Your task to perform on an android device: See recent photos Image 0: 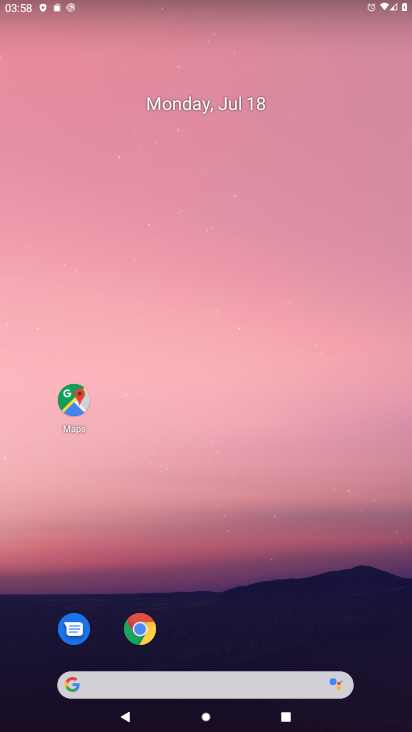
Step 0: click (130, 636)
Your task to perform on an android device: See recent photos Image 1: 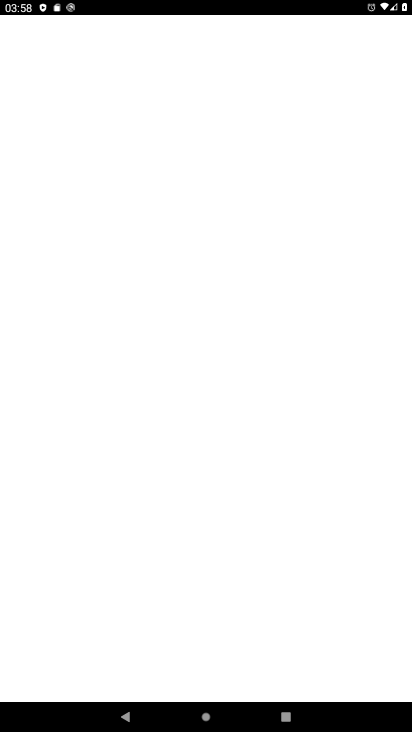
Step 1: press home button
Your task to perform on an android device: See recent photos Image 2: 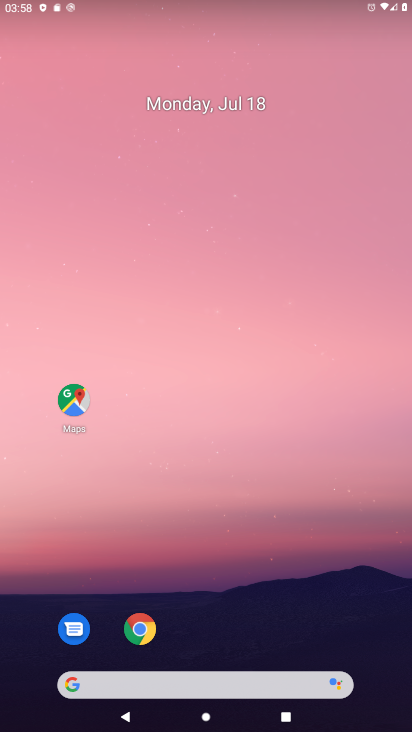
Step 2: drag from (366, 673) to (247, 109)
Your task to perform on an android device: See recent photos Image 3: 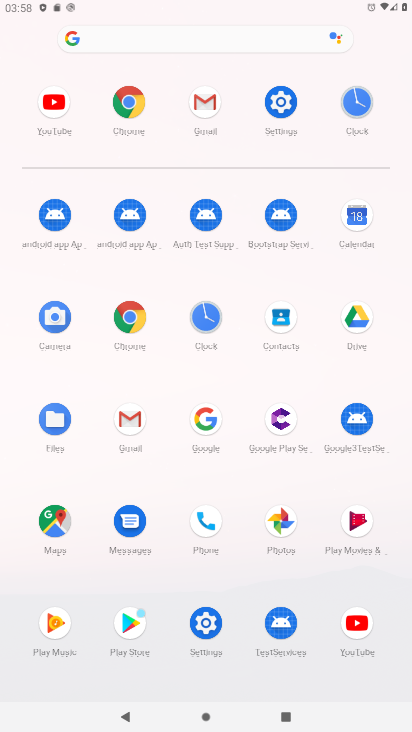
Step 3: click (271, 509)
Your task to perform on an android device: See recent photos Image 4: 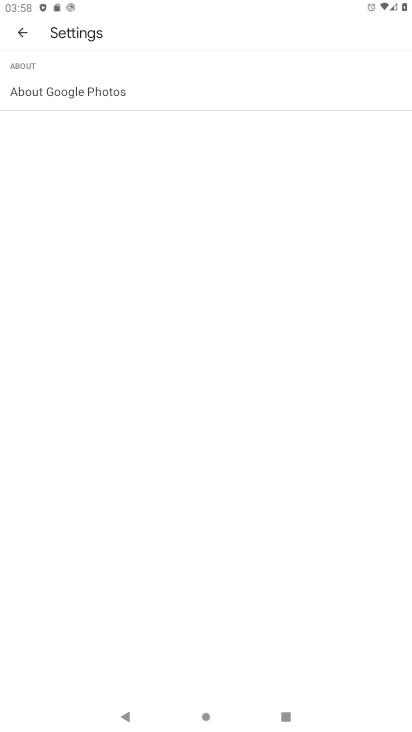
Step 4: click (14, 29)
Your task to perform on an android device: See recent photos Image 5: 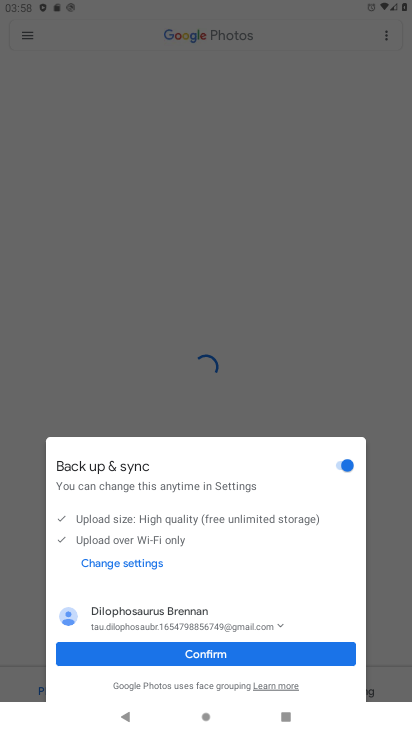
Step 5: click (296, 650)
Your task to perform on an android device: See recent photos Image 6: 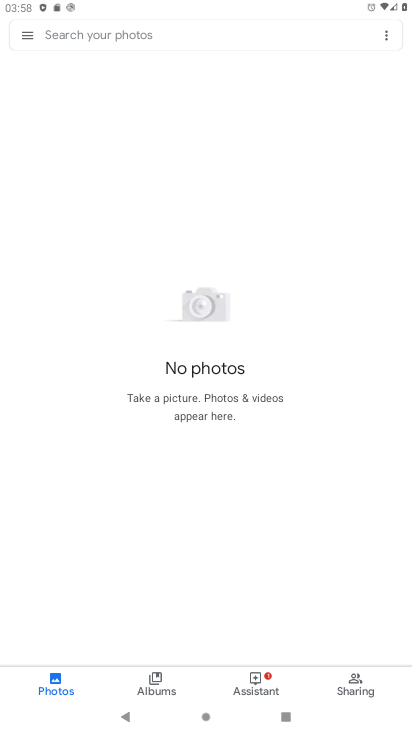
Step 6: task complete